Your task to perform on an android device: Go to CNN.com Image 0: 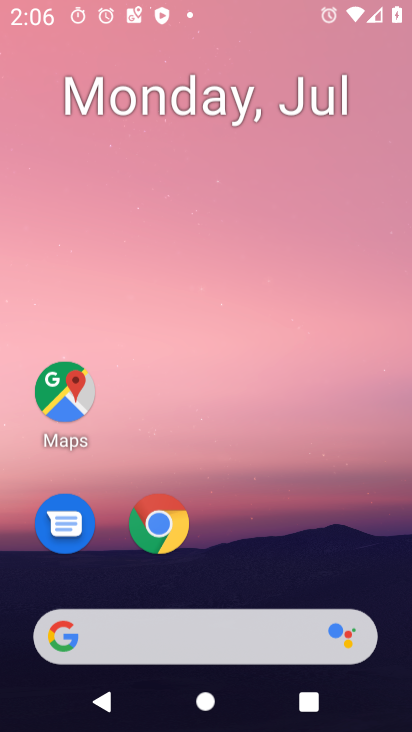
Step 0: press home button
Your task to perform on an android device: Go to CNN.com Image 1: 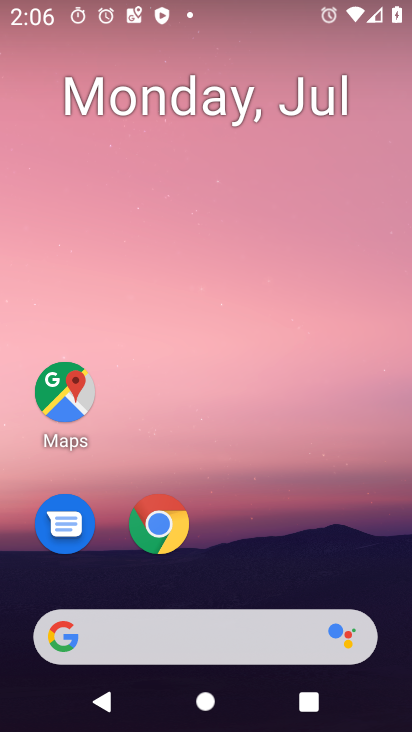
Step 1: click (54, 652)
Your task to perform on an android device: Go to CNN.com Image 2: 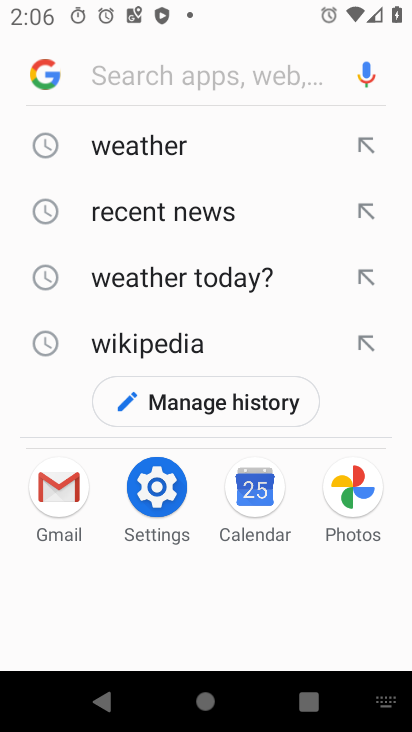
Step 2: type "CNN.com"
Your task to perform on an android device: Go to CNN.com Image 3: 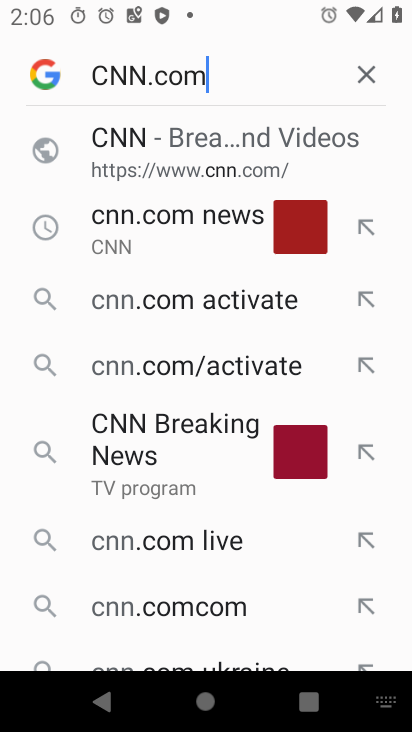
Step 3: press enter
Your task to perform on an android device: Go to CNN.com Image 4: 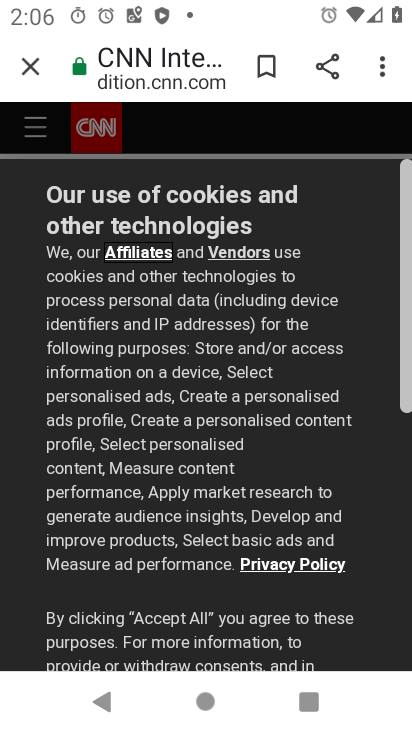
Step 4: task complete